Your task to perform on an android device: Go to wifi settings Image 0: 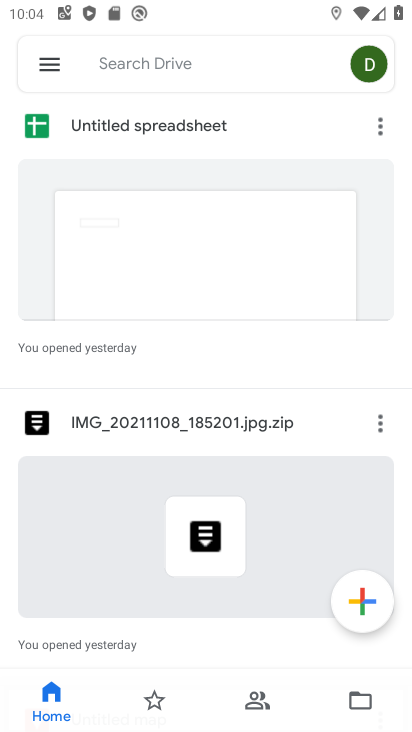
Step 0: press home button
Your task to perform on an android device: Go to wifi settings Image 1: 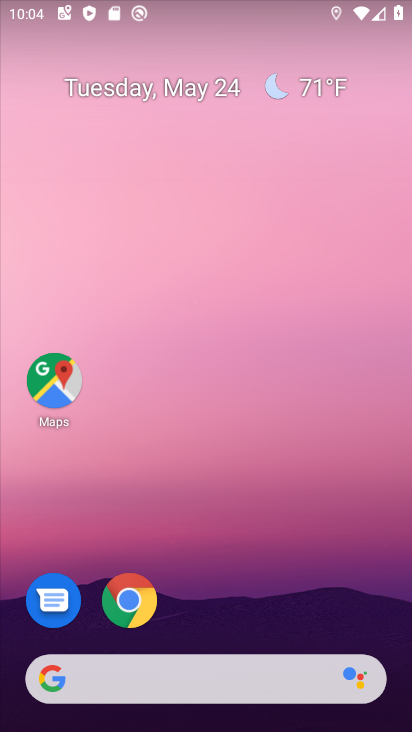
Step 1: drag from (256, 630) to (287, 74)
Your task to perform on an android device: Go to wifi settings Image 2: 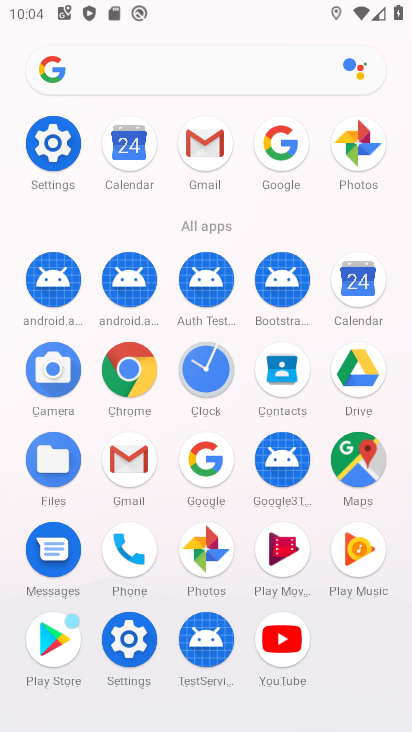
Step 2: click (128, 643)
Your task to perform on an android device: Go to wifi settings Image 3: 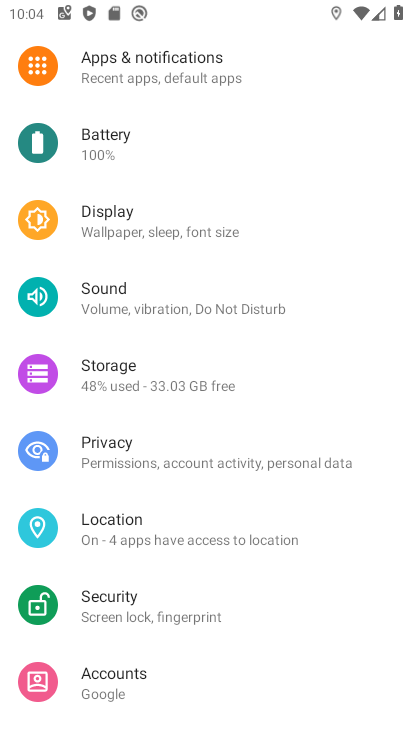
Step 3: drag from (191, 174) to (203, 419)
Your task to perform on an android device: Go to wifi settings Image 4: 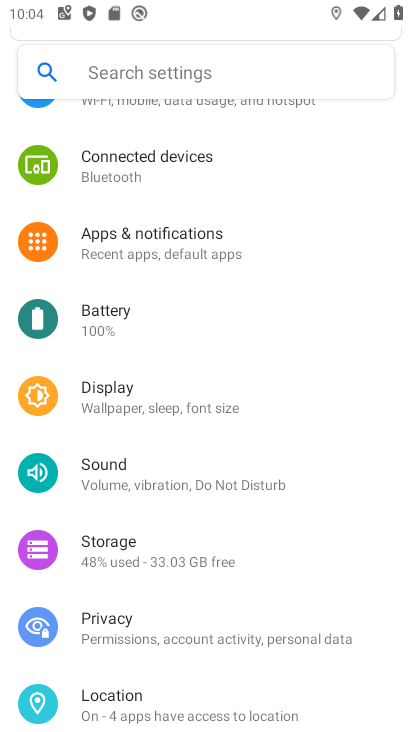
Step 4: drag from (184, 416) to (157, 619)
Your task to perform on an android device: Go to wifi settings Image 5: 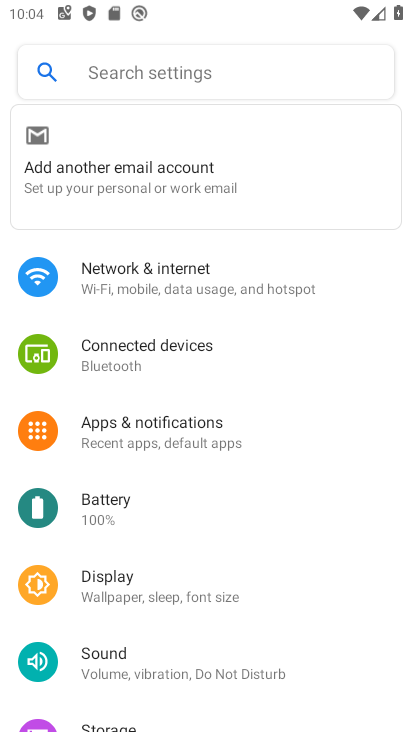
Step 5: click (148, 285)
Your task to perform on an android device: Go to wifi settings Image 6: 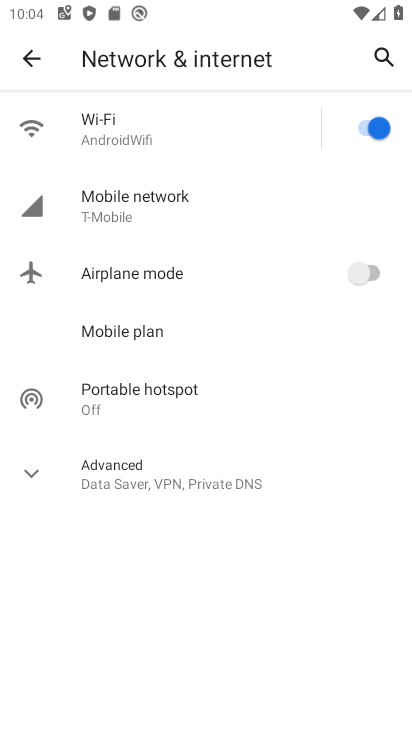
Step 6: click (138, 127)
Your task to perform on an android device: Go to wifi settings Image 7: 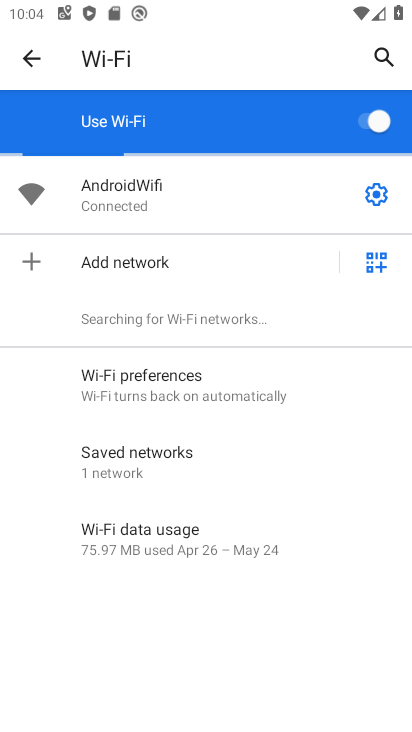
Step 7: task complete